Your task to perform on an android device: toggle priority inbox in the gmail app Image 0: 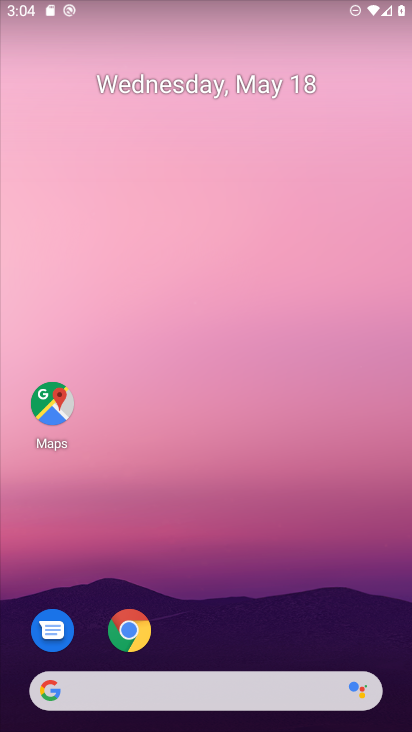
Step 0: drag from (233, 651) to (256, 207)
Your task to perform on an android device: toggle priority inbox in the gmail app Image 1: 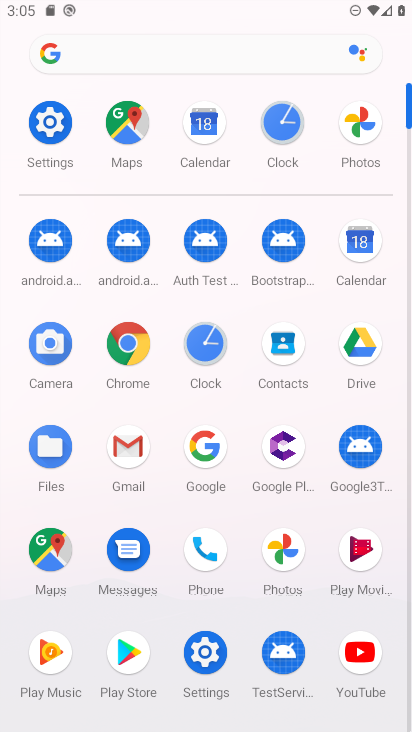
Step 1: click (116, 441)
Your task to perform on an android device: toggle priority inbox in the gmail app Image 2: 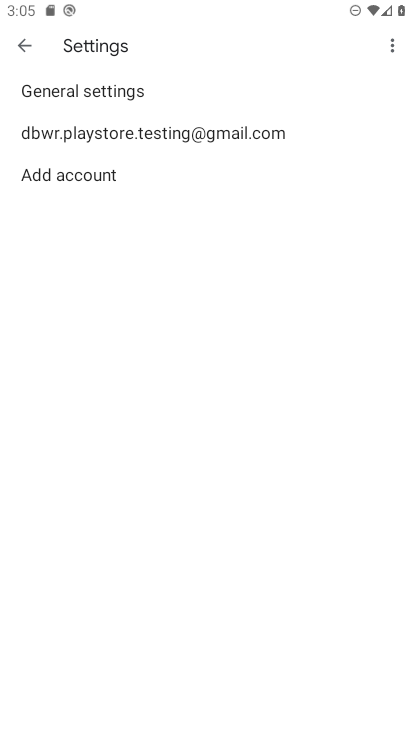
Step 2: click (139, 128)
Your task to perform on an android device: toggle priority inbox in the gmail app Image 3: 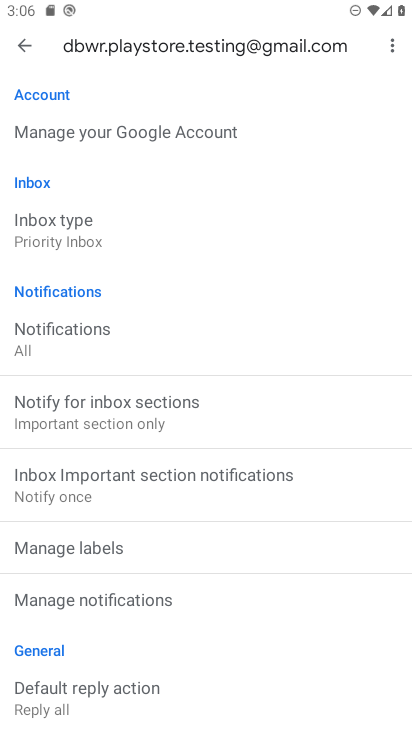
Step 3: click (96, 235)
Your task to perform on an android device: toggle priority inbox in the gmail app Image 4: 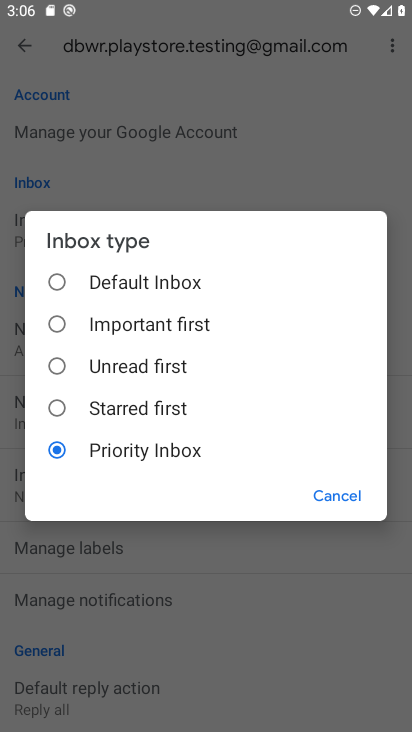
Step 4: click (114, 454)
Your task to perform on an android device: toggle priority inbox in the gmail app Image 5: 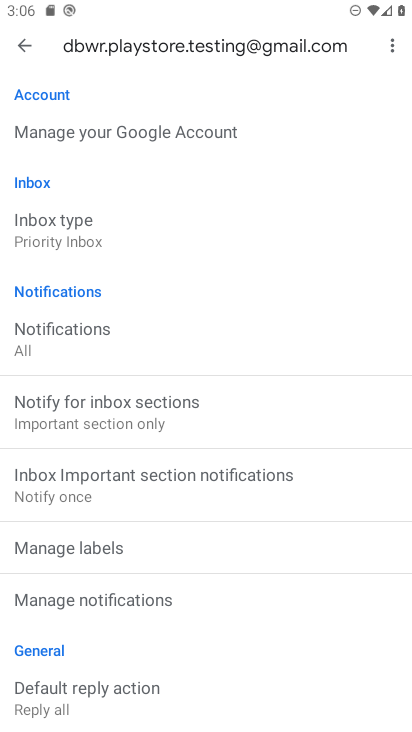
Step 5: task complete